Your task to perform on an android device: Go to settings Image 0: 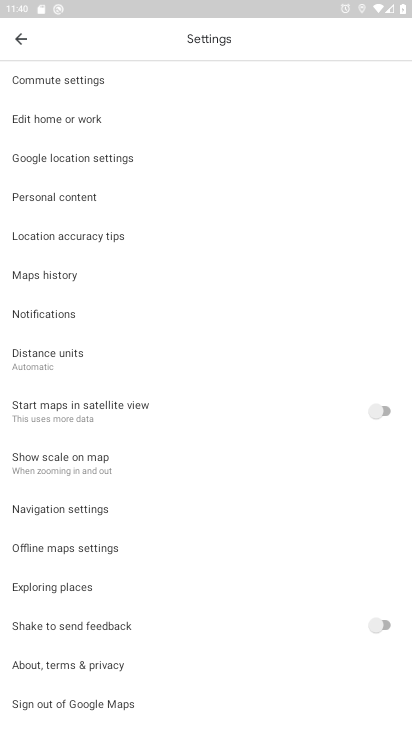
Step 0: press home button
Your task to perform on an android device: Go to settings Image 1: 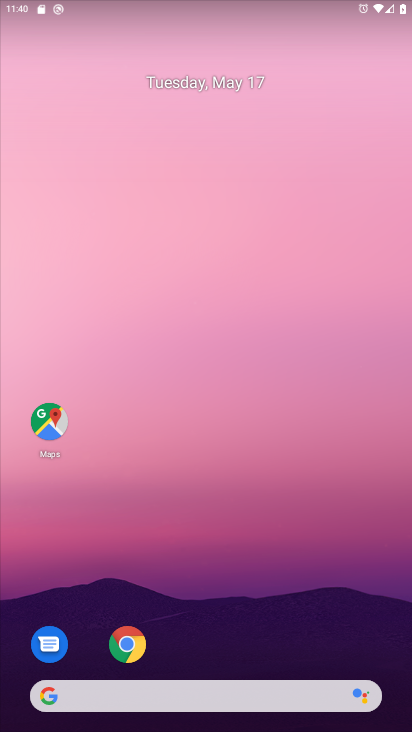
Step 1: drag from (208, 653) to (223, 80)
Your task to perform on an android device: Go to settings Image 2: 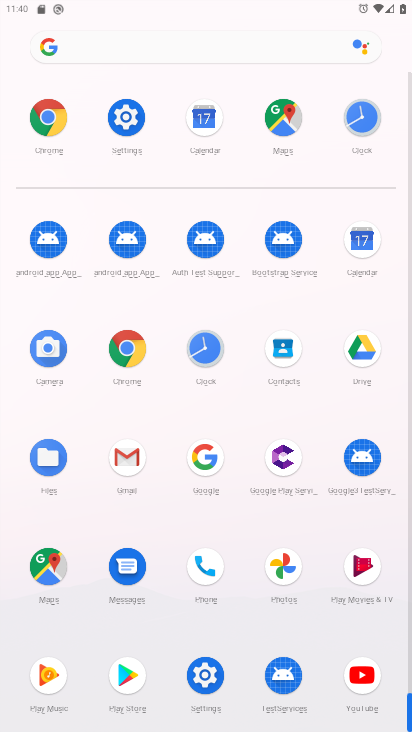
Step 2: click (122, 114)
Your task to perform on an android device: Go to settings Image 3: 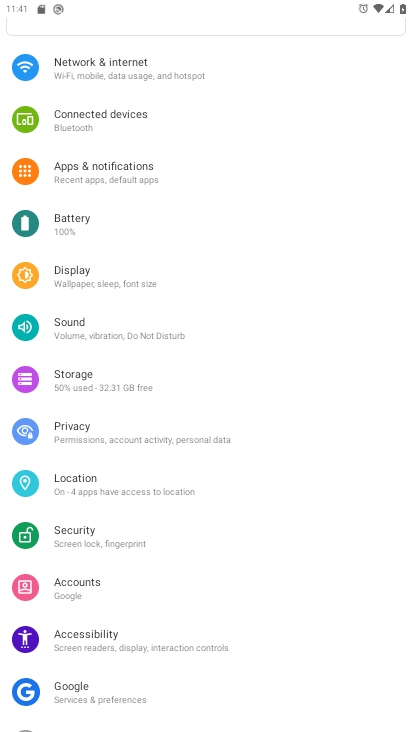
Step 3: task complete